Your task to perform on an android device: open app "Speedtest by Ookla" Image 0: 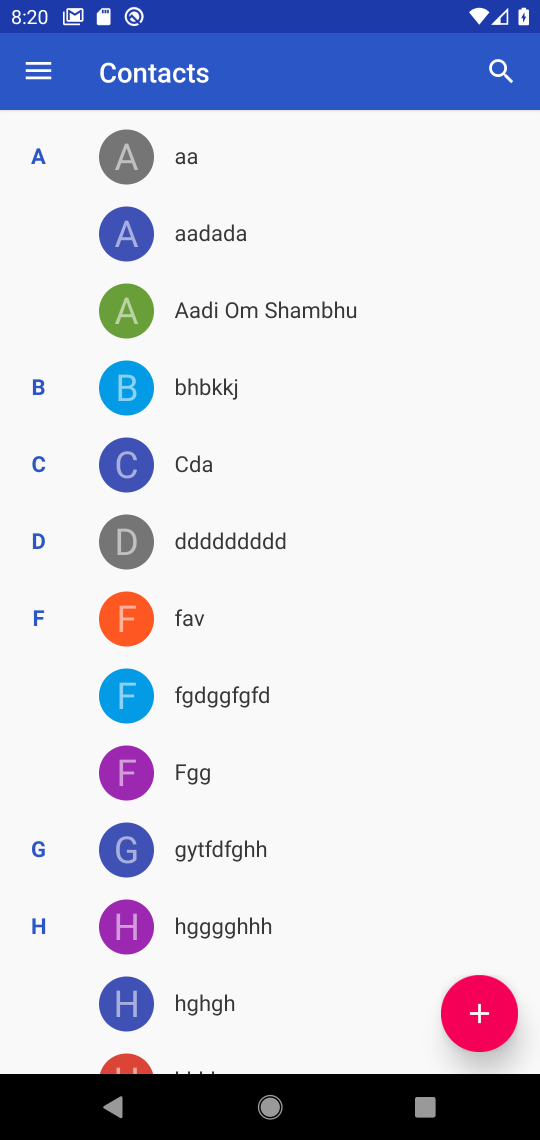
Step 0: press home button
Your task to perform on an android device: open app "Speedtest by Ookla" Image 1: 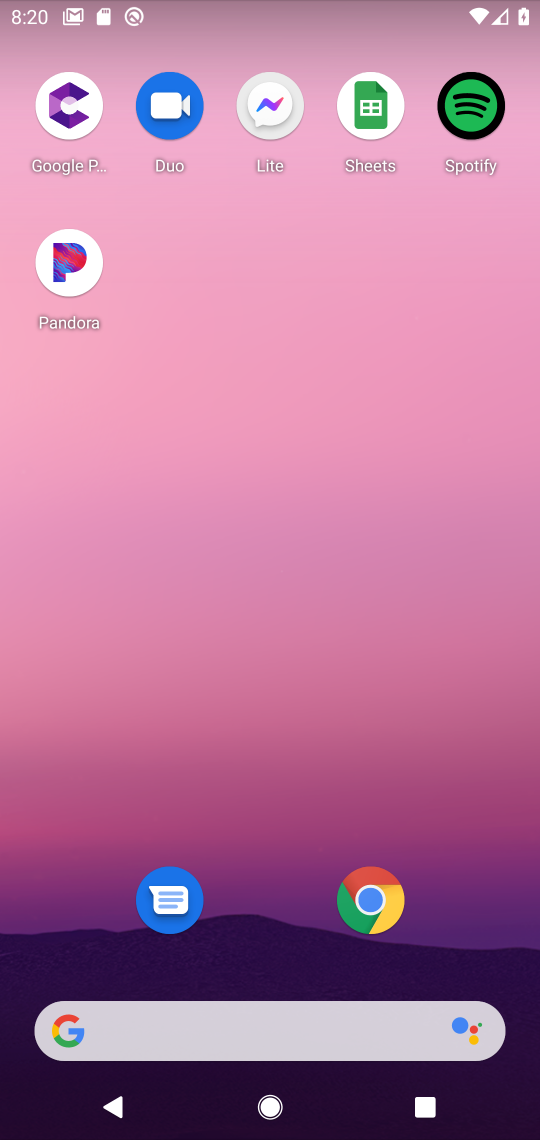
Step 1: drag from (281, 910) to (220, 90)
Your task to perform on an android device: open app "Speedtest by Ookla" Image 2: 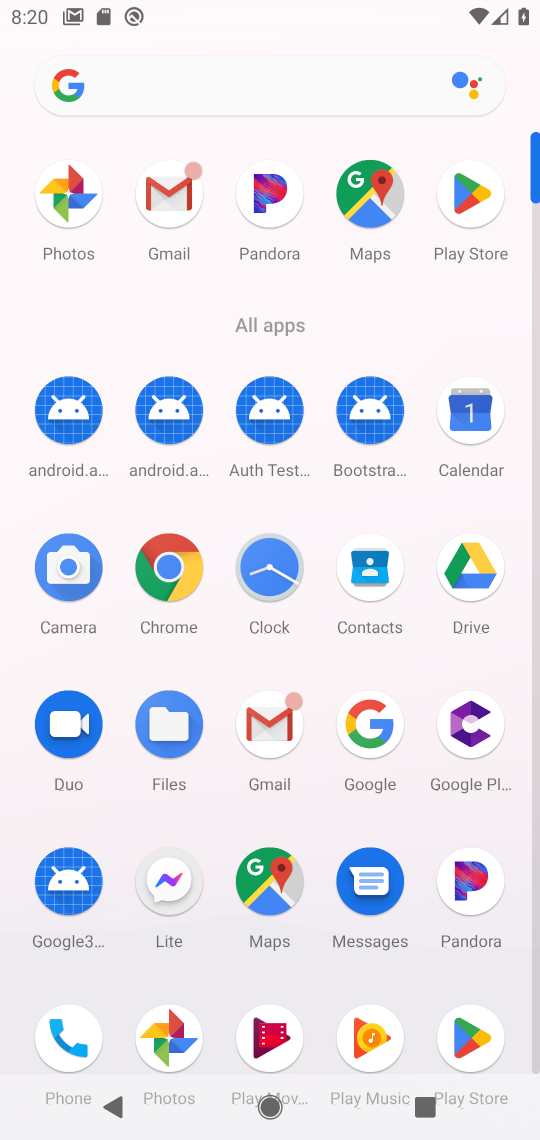
Step 2: click (457, 1039)
Your task to perform on an android device: open app "Speedtest by Ookla" Image 3: 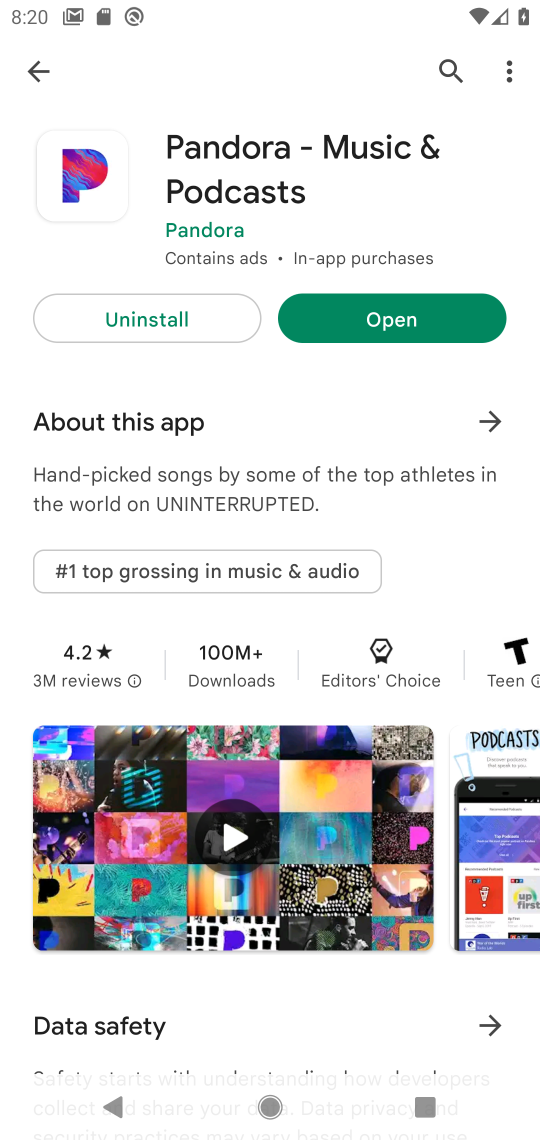
Step 3: click (43, 60)
Your task to perform on an android device: open app "Speedtest by Ookla" Image 4: 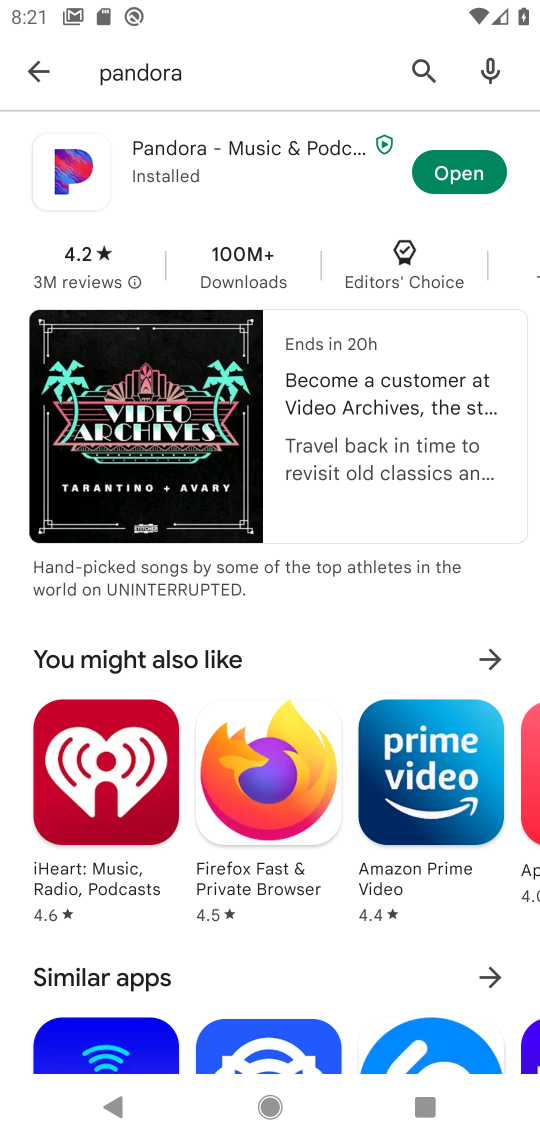
Step 4: click (36, 55)
Your task to perform on an android device: open app "Speedtest by Ookla" Image 5: 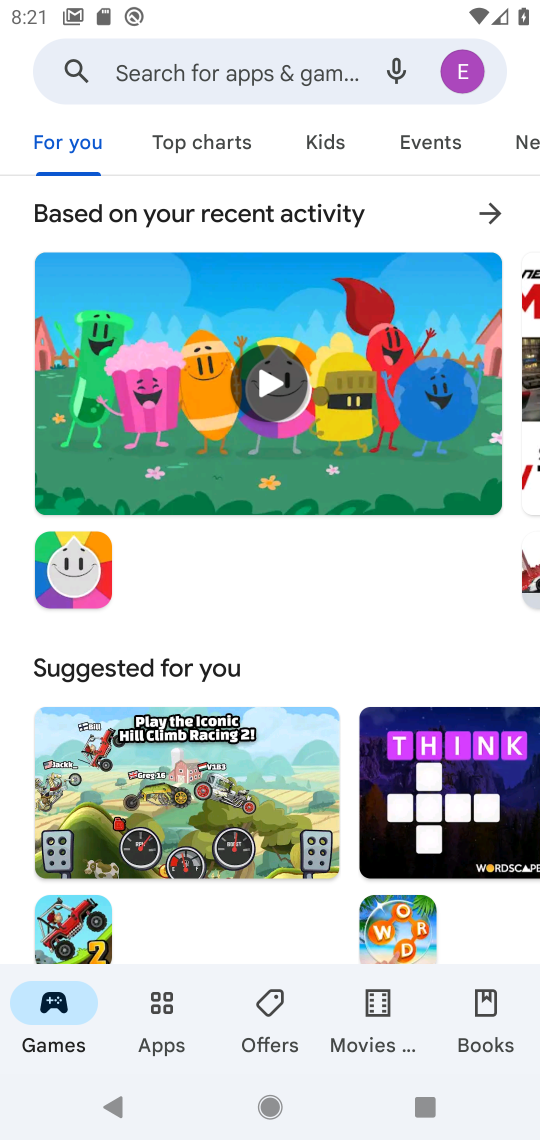
Step 5: click (229, 76)
Your task to perform on an android device: open app "Speedtest by Ookla" Image 6: 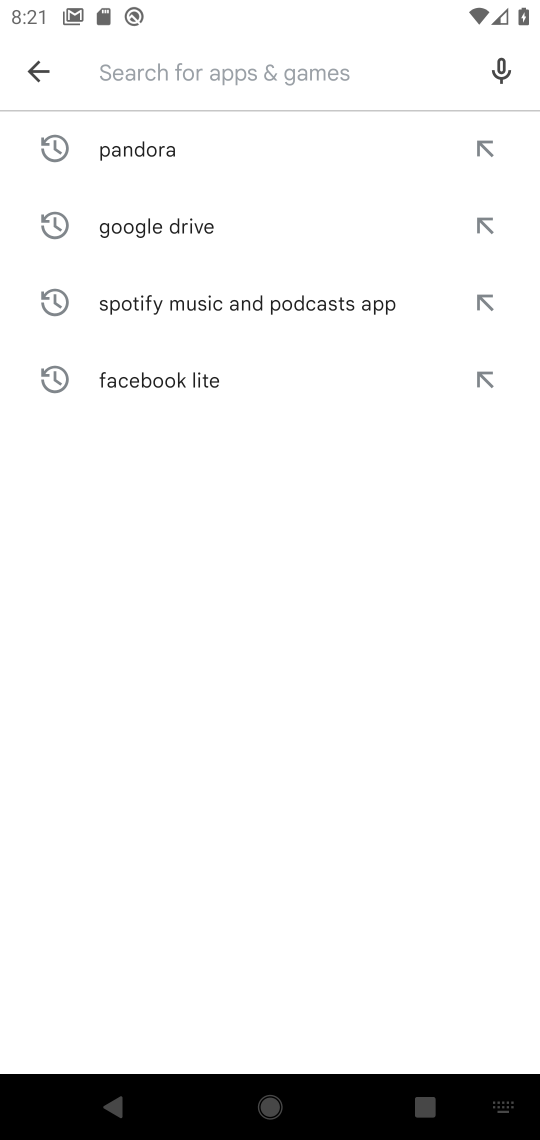
Step 6: type "Speedtest by Ookla"
Your task to perform on an android device: open app "Speedtest by Ookla" Image 7: 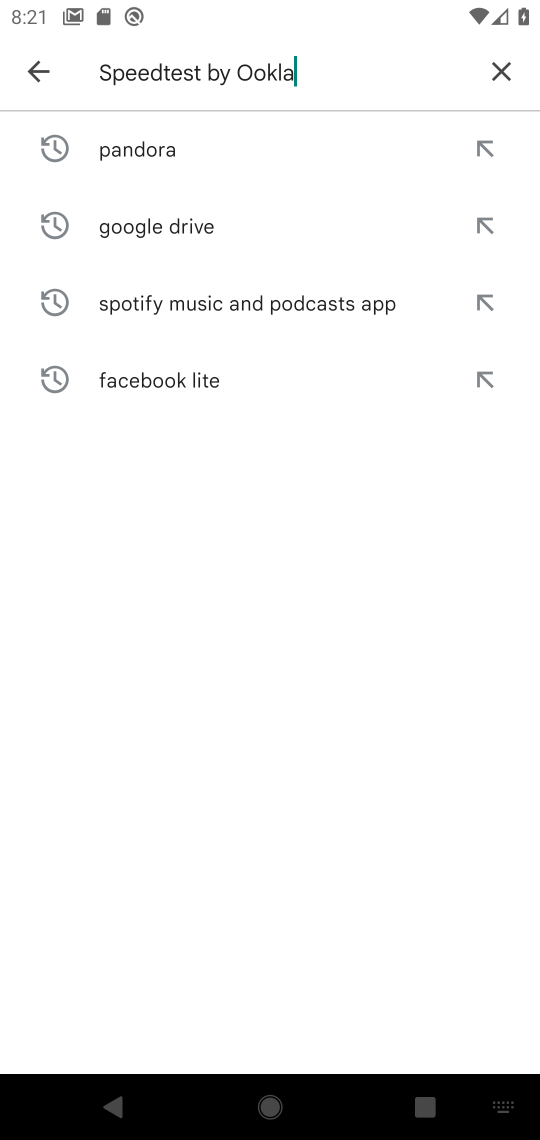
Step 7: type ""
Your task to perform on an android device: open app "Speedtest by Ookla" Image 8: 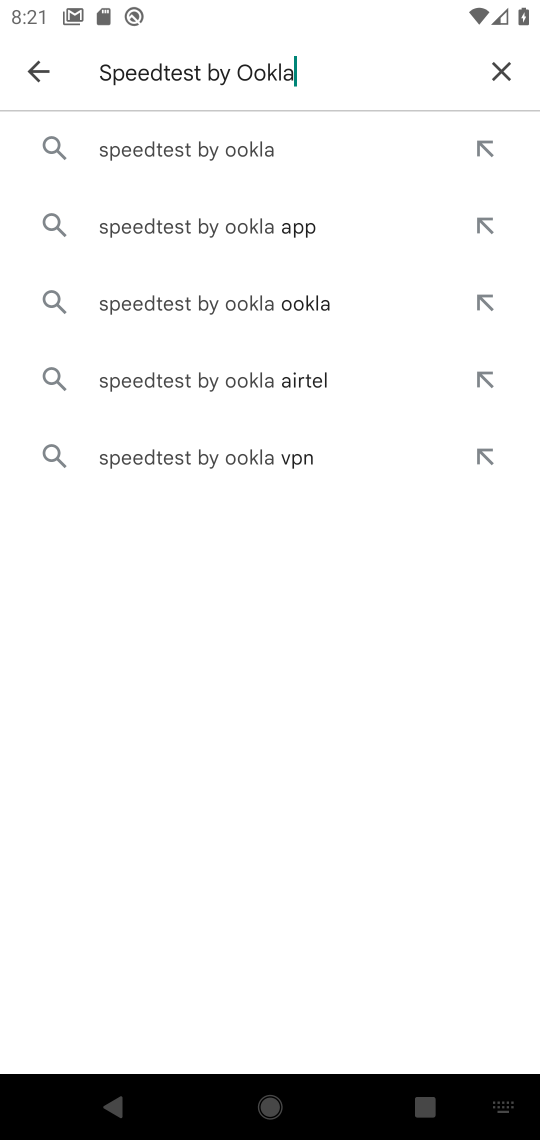
Step 8: click (223, 155)
Your task to perform on an android device: open app "Speedtest by Ookla" Image 9: 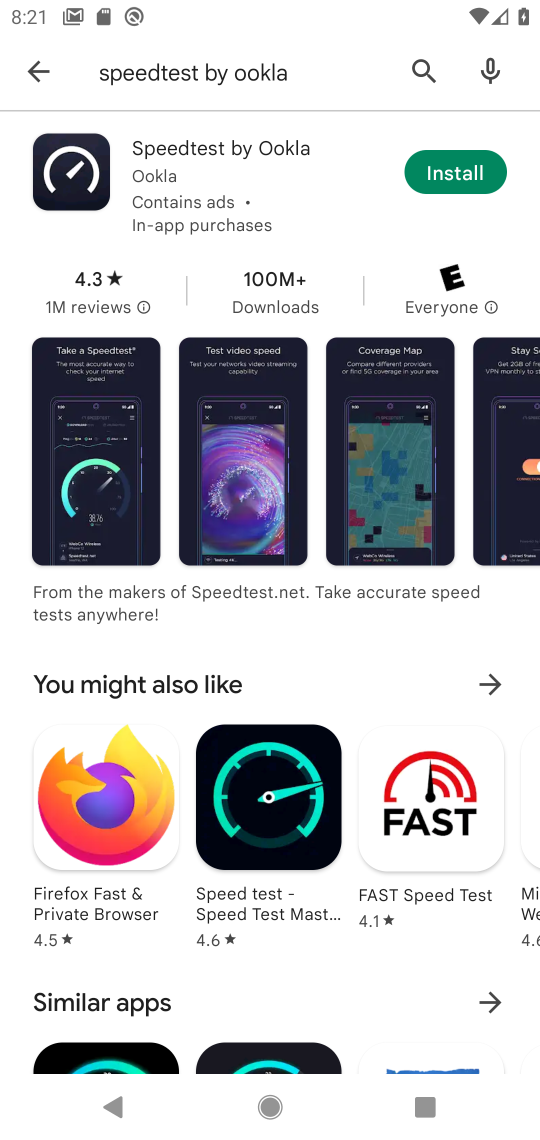
Step 9: task complete